Your task to perform on an android device: Show me popular videos on Youtube Image 0: 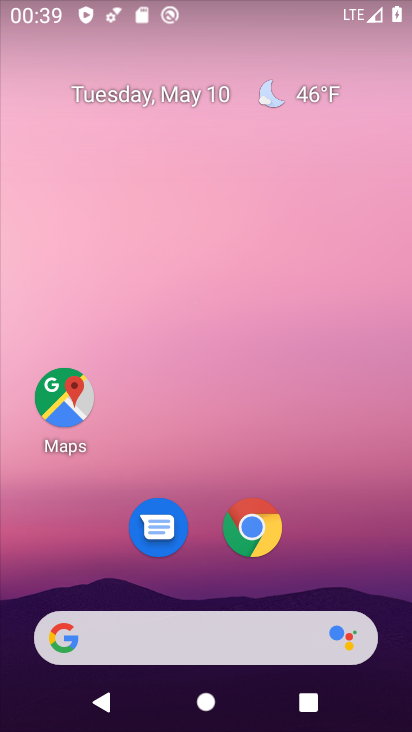
Step 0: drag from (338, 534) to (152, 217)
Your task to perform on an android device: Show me popular videos on Youtube Image 1: 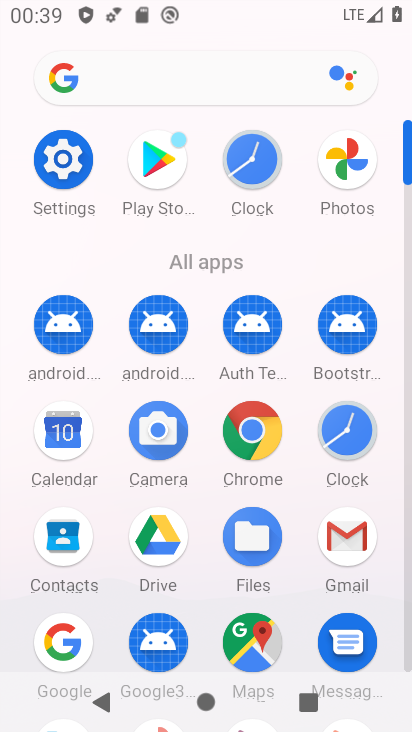
Step 1: drag from (216, 607) to (241, 360)
Your task to perform on an android device: Show me popular videos on Youtube Image 2: 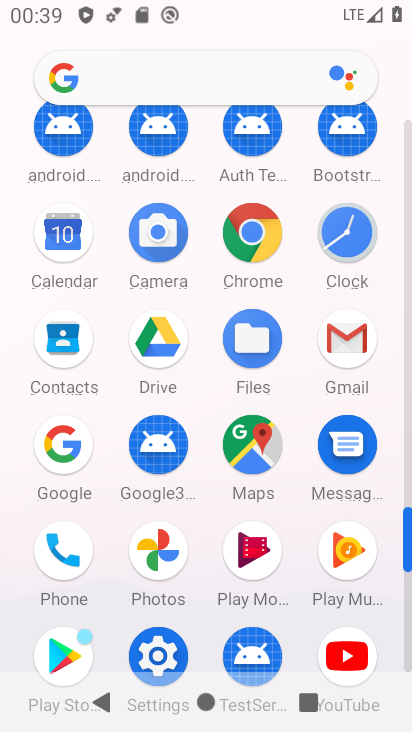
Step 2: click (343, 632)
Your task to perform on an android device: Show me popular videos on Youtube Image 3: 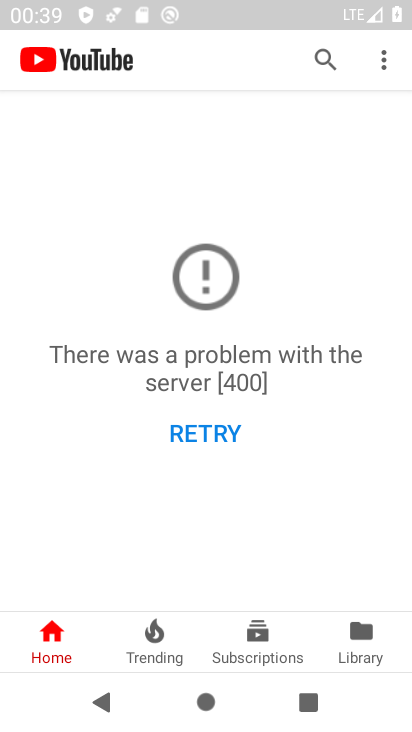
Step 3: click (217, 437)
Your task to perform on an android device: Show me popular videos on Youtube Image 4: 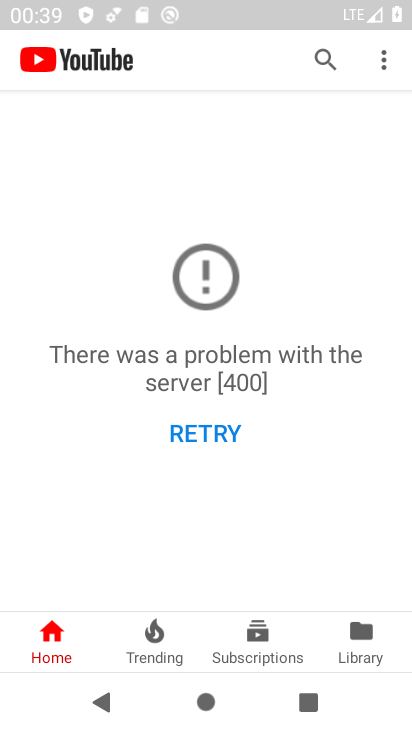
Step 4: drag from (219, 533) to (220, 472)
Your task to perform on an android device: Show me popular videos on Youtube Image 5: 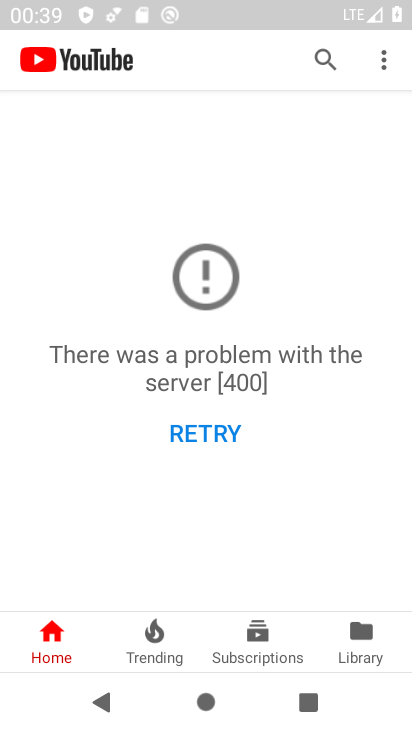
Step 5: click (154, 653)
Your task to perform on an android device: Show me popular videos on Youtube Image 6: 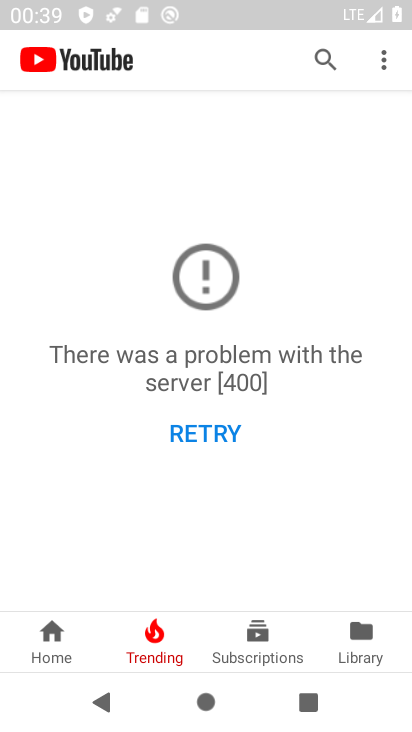
Step 6: click (154, 653)
Your task to perform on an android device: Show me popular videos on Youtube Image 7: 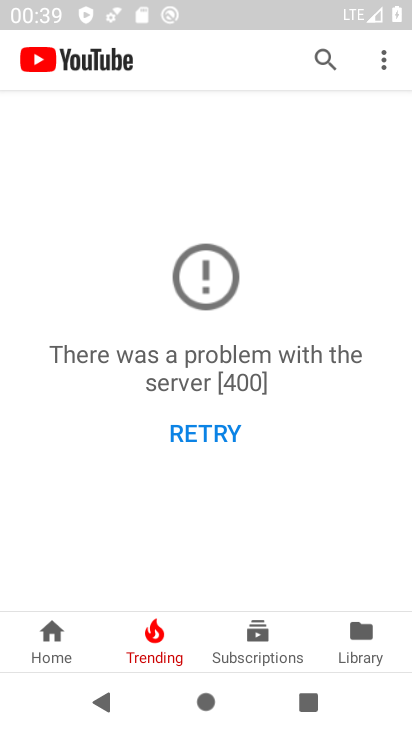
Step 7: task complete